Your task to perform on an android device: Open Yahoo.com Image 0: 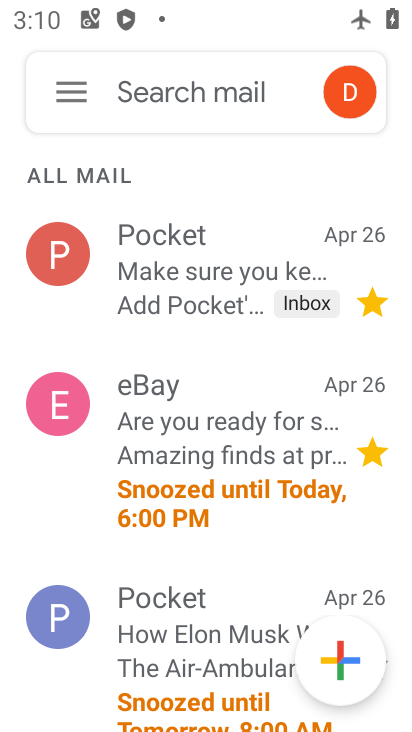
Step 0: press home button
Your task to perform on an android device: Open Yahoo.com Image 1: 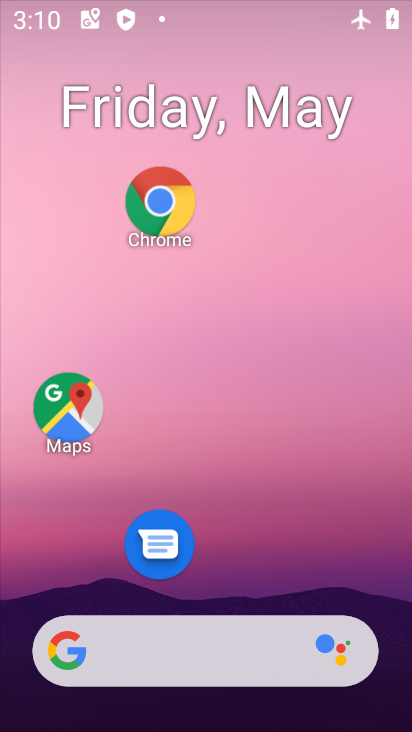
Step 1: drag from (289, 596) to (278, 306)
Your task to perform on an android device: Open Yahoo.com Image 2: 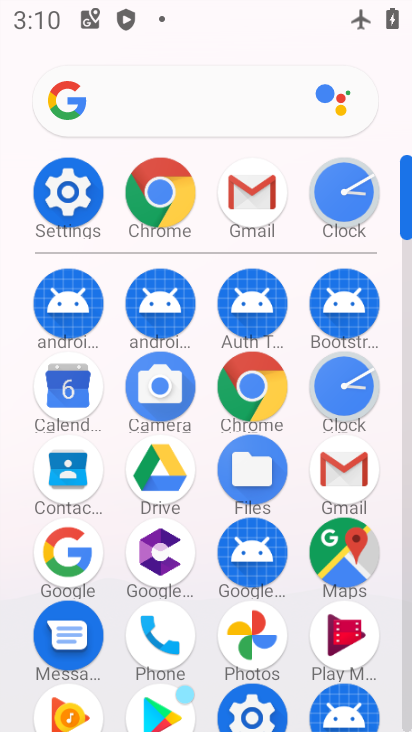
Step 2: click (264, 399)
Your task to perform on an android device: Open Yahoo.com Image 3: 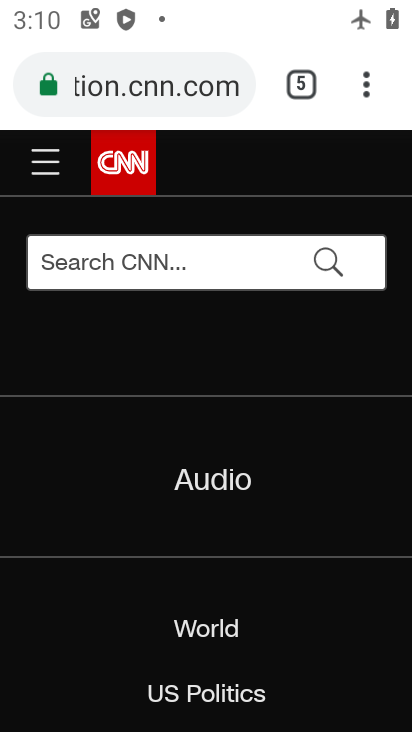
Step 3: click (300, 100)
Your task to perform on an android device: Open Yahoo.com Image 4: 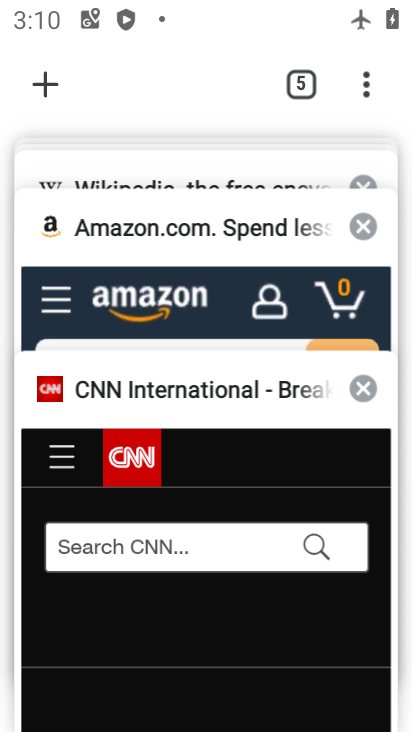
Step 4: drag from (177, 338) to (114, 712)
Your task to perform on an android device: Open Yahoo.com Image 5: 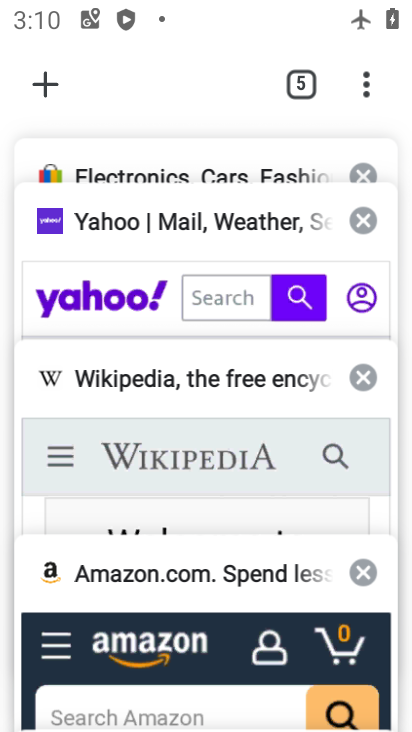
Step 5: click (171, 258)
Your task to perform on an android device: Open Yahoo.com Image 6: 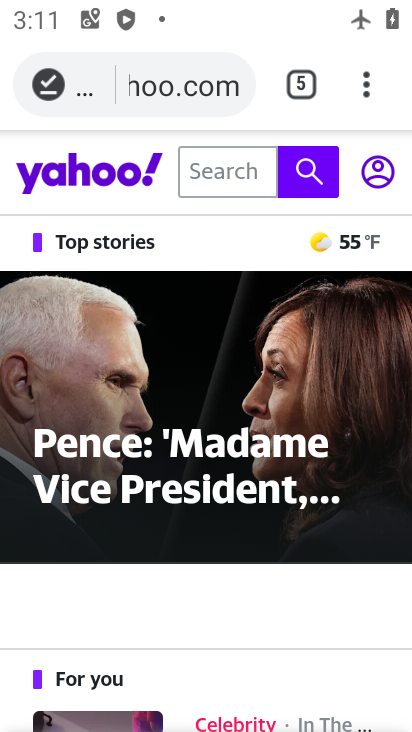
Step 6: task complete